Your task to perform on an android device: add a contact Image 0: 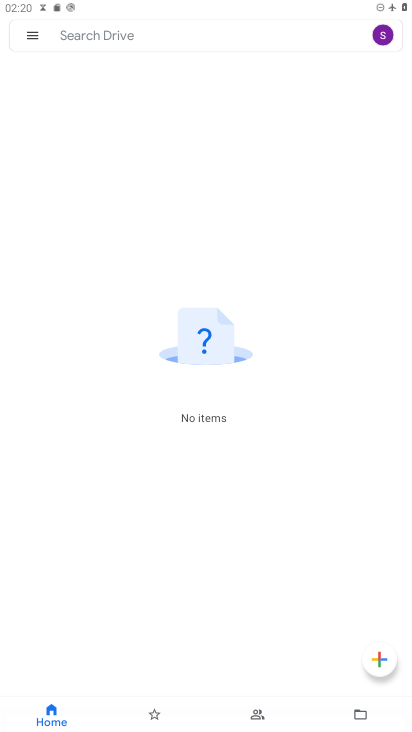
Step 0: press home button
Your task to perform on an android device: add a contact Image 1: 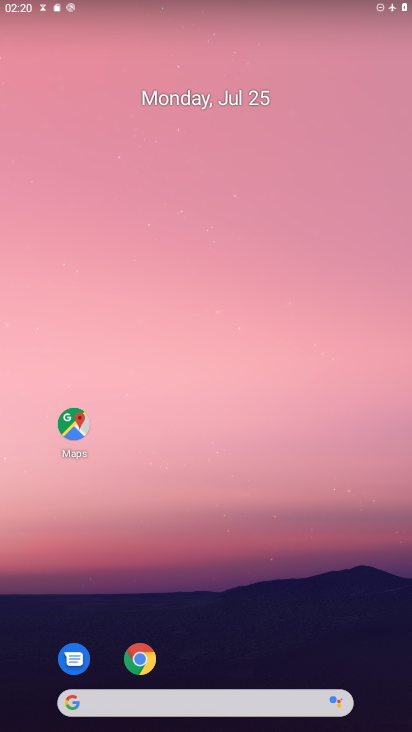
Step 1: drag from (245, 636) to (224, 183)
Your task to perform on an android device: add a contact Image 2: 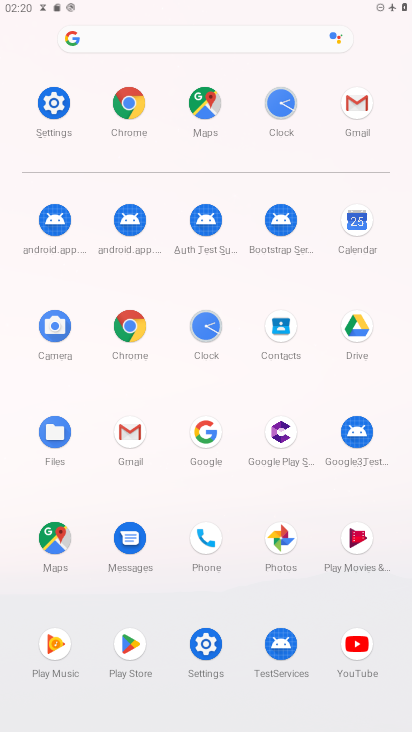
Step 2: click (201, 535)
Your task to perform on an android device: add a contact Image 3: 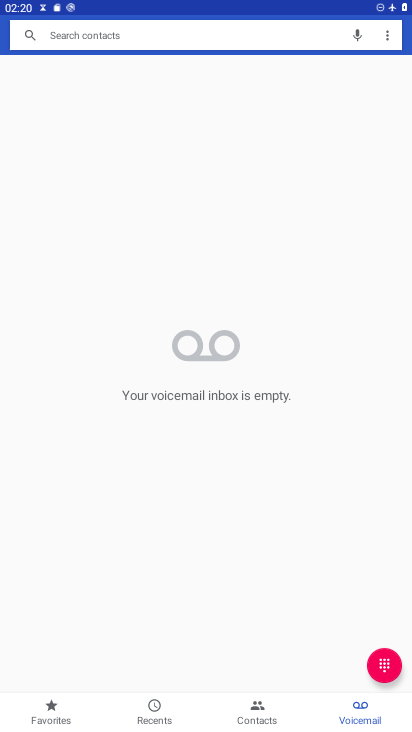
Step 3: click (253, 707)
Your task to perform on an android device: add a contact Image 4: 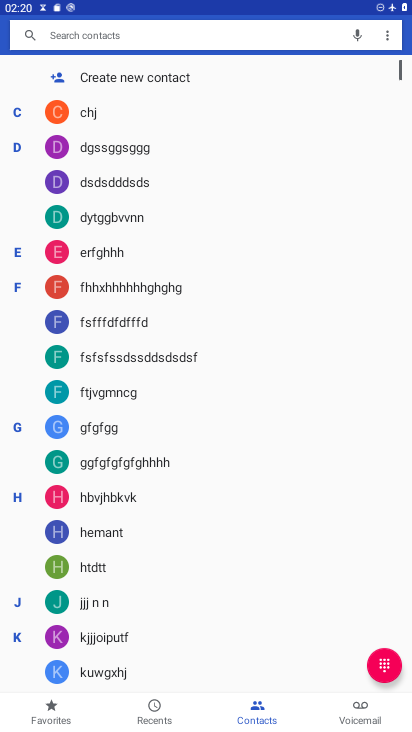
Step 4: click (111, 78)
Your task to perform on an android device: add a contact Image 5: 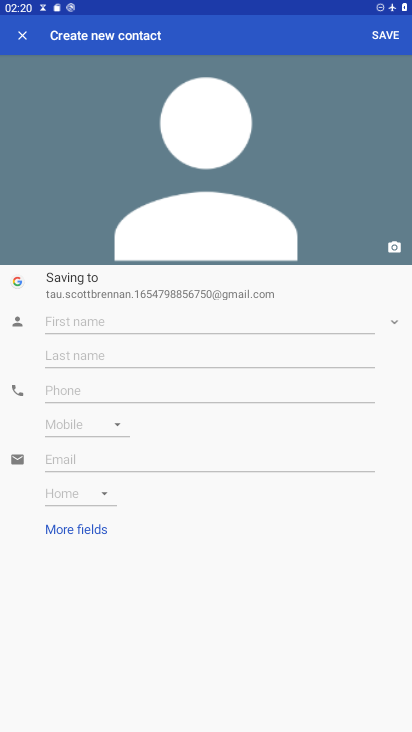
Step 5: click (139, 321)
Your task to perform on an android device: add a contact Image 6: 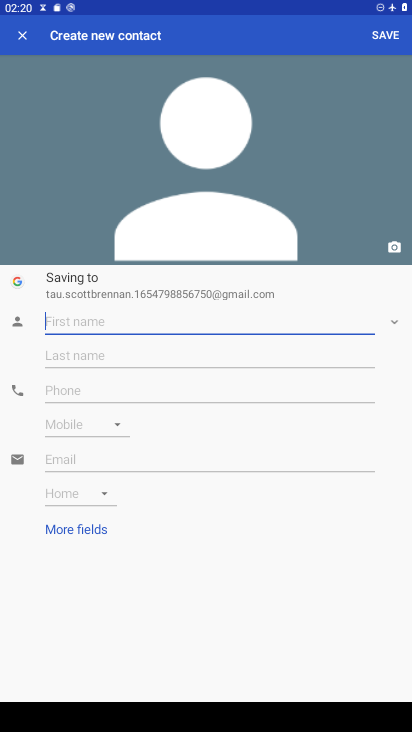
Step 6: type "cccccccccccccccccc "
Your task to perform on an android device: add a contact Image 7: 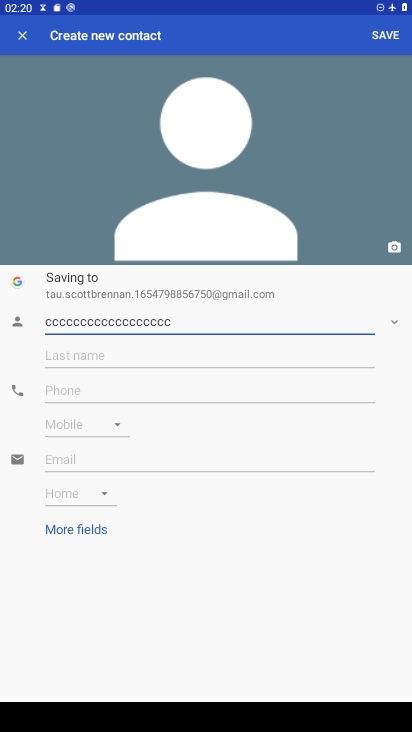
Step 7: click (122, 391)
Your task to perform on an android device: add a contact Image 8: 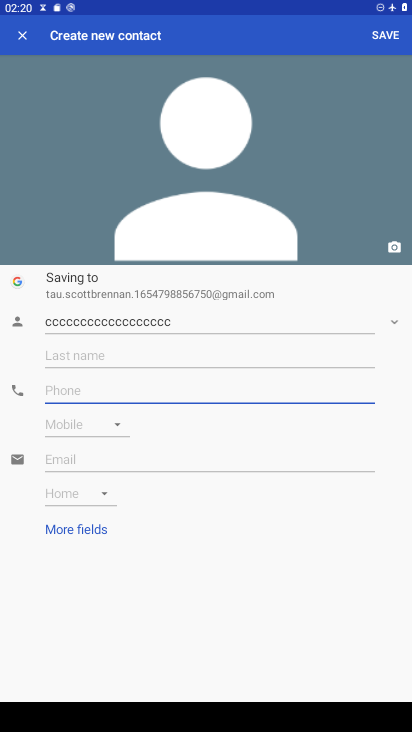
Step 8: type "33333333333333 "
Your task to perform on an android device: add a contact Image 9: 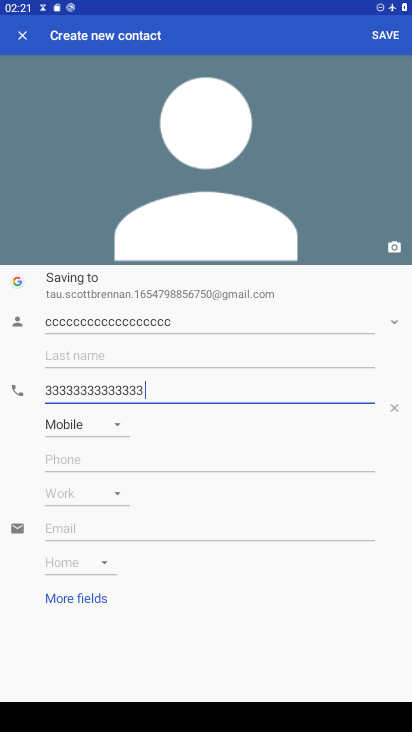
Step 9: click (407, 37)
Your task to perform on an android device: add a contact Image 10: 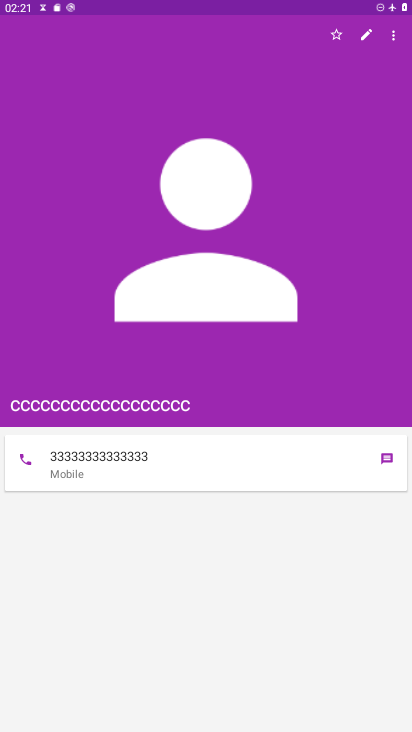
Step 10: task complete